Your task to perform on an android device: Go to Google maps Image 0: 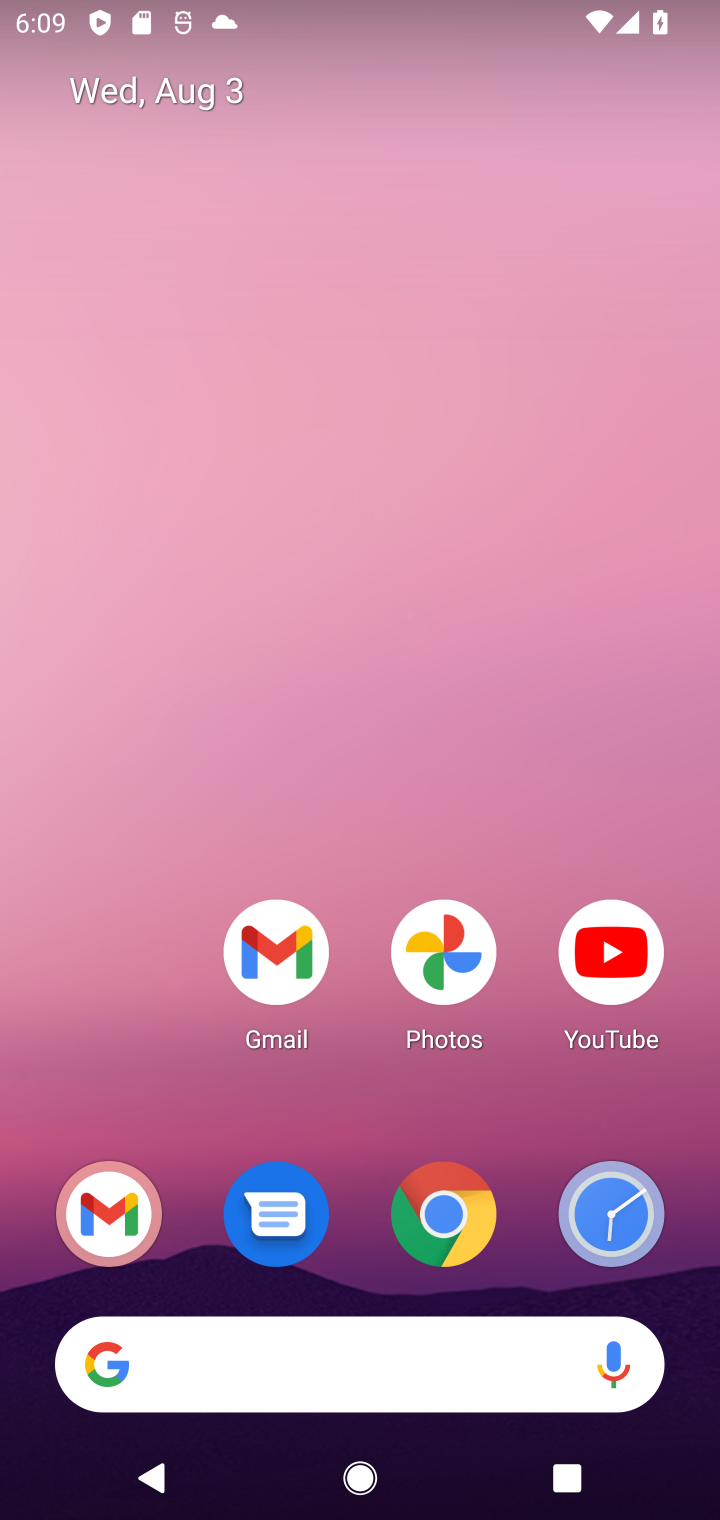
Step 0: drag from (142, 1093) to (59, 2)
Your task to perform on an android device: Go to Google maps Image 1: 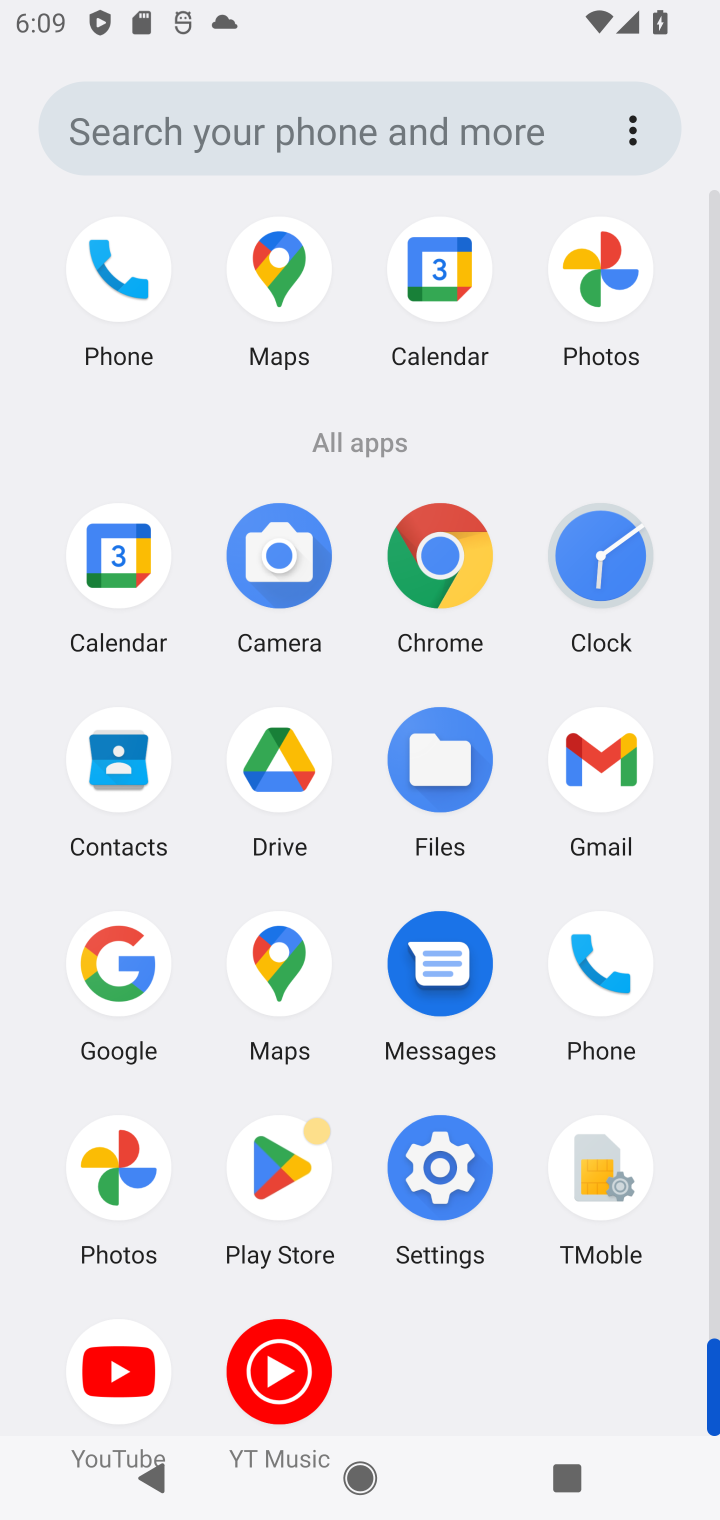
Step 1: click (114, 969)
Your task to perform on an android device: Go to Google maps Image 2: 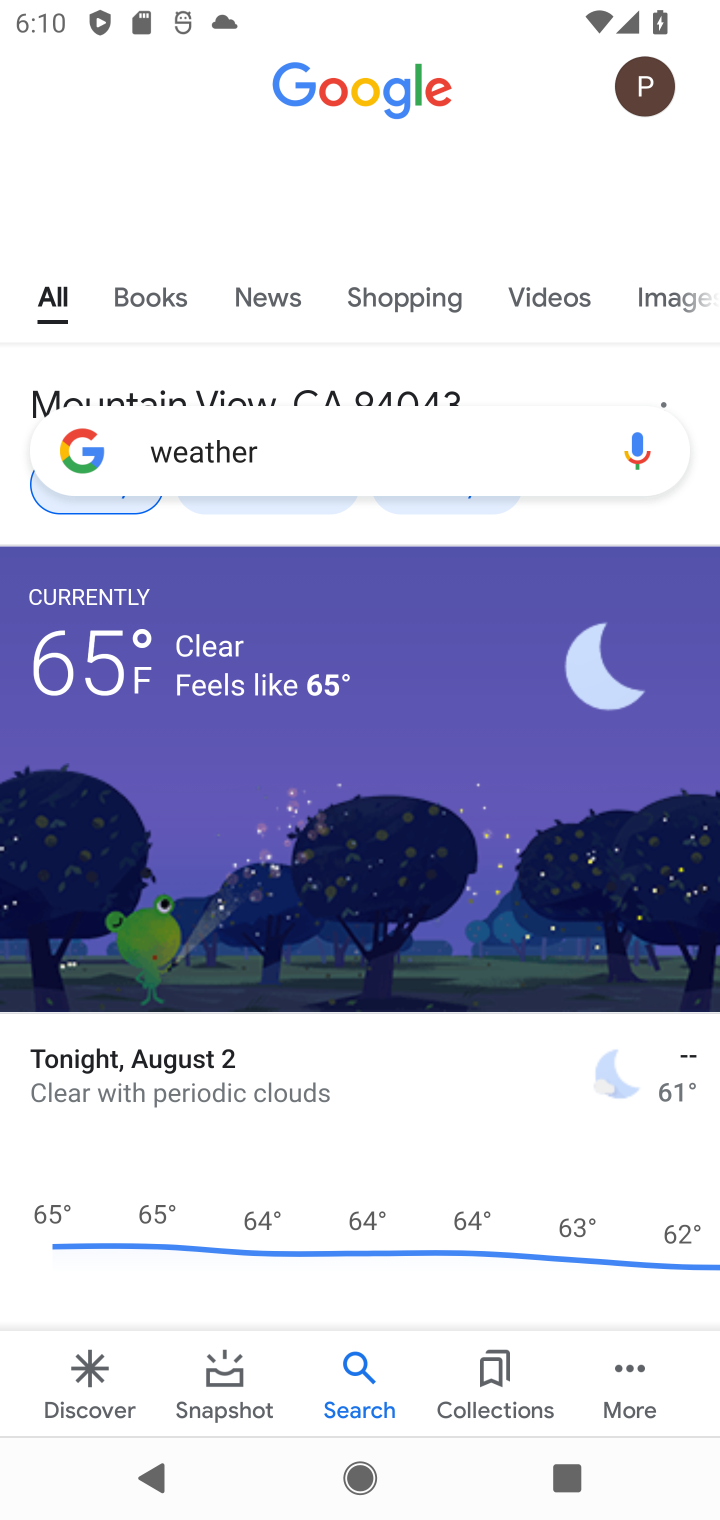
Step 2: task complete